Your task to perform on an android device: uninstall "Messenger Lite" Image 0: 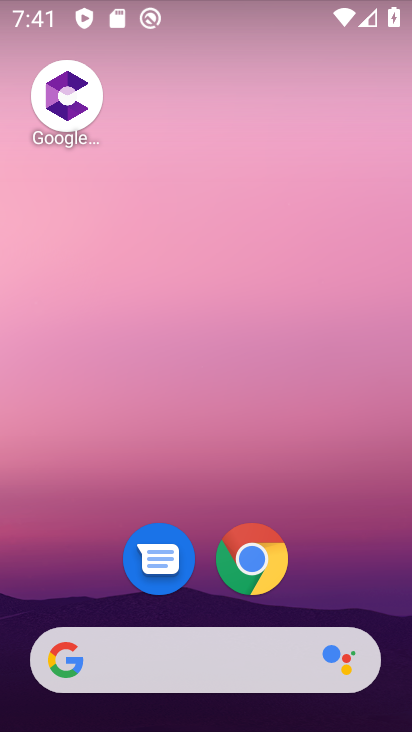
Step 0: drag from (222, 644) to (199, 50)
Your task to perform on an android device: uninstall "Messenger Lite" Image 1: 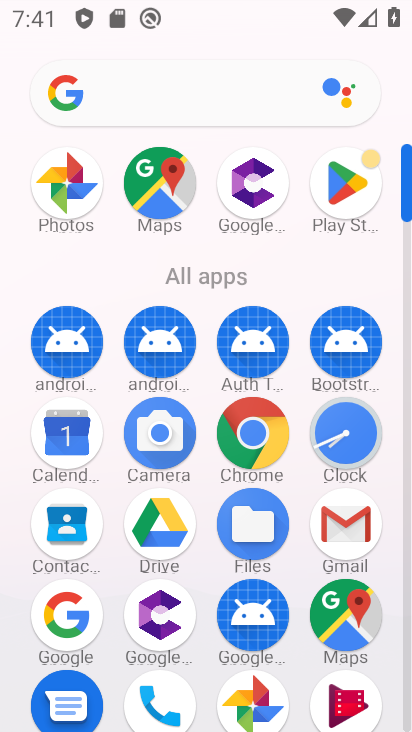
Step 1: click (359, 168)
Your task to perform on an android device: uninstall "Messenger Lite" Image 2: 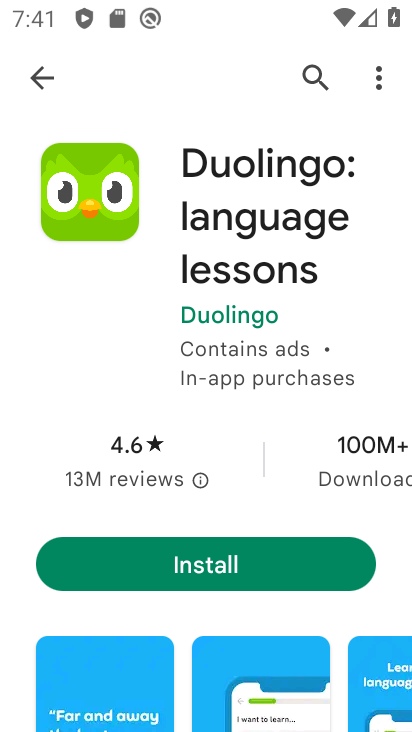
Step 2: click (309, 74)
Your task to perform on an android device: uninstall "Messenger Lite" Image 3: 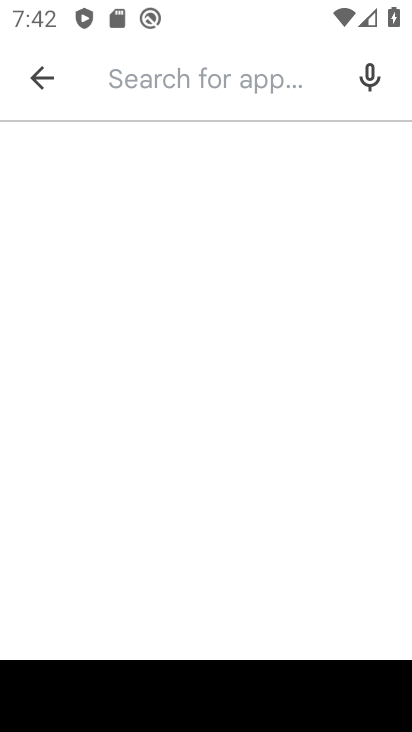
Step 3: click (267, 70)
Your task to perform on an android device: uninstall "Messenger Lite" Image 4: 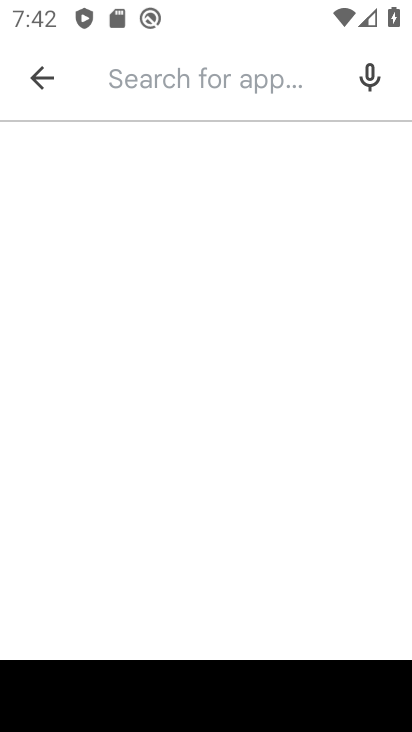
Step 4: type "Messenger Lite"
Your task to perform on an android device: uninstall "Messenger Lite" Image 5: 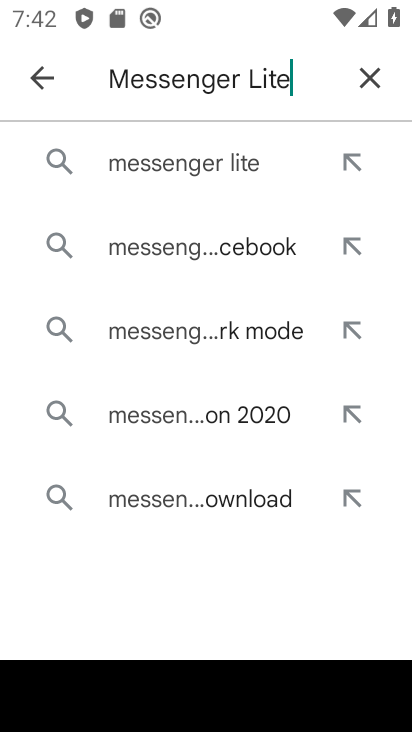
Step 5: click (159, 157)
Your task to perform on an android device: uninstall "Messenger Lite" Image 6: 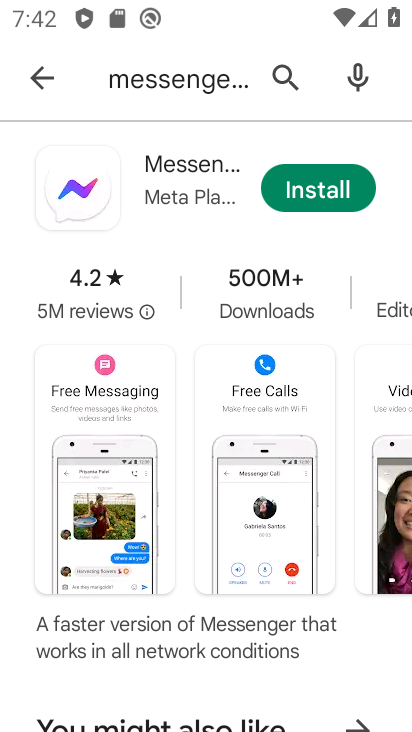
Step 6: task complete